Your task to perform on an android device: Turn off the flashlight Image 0: 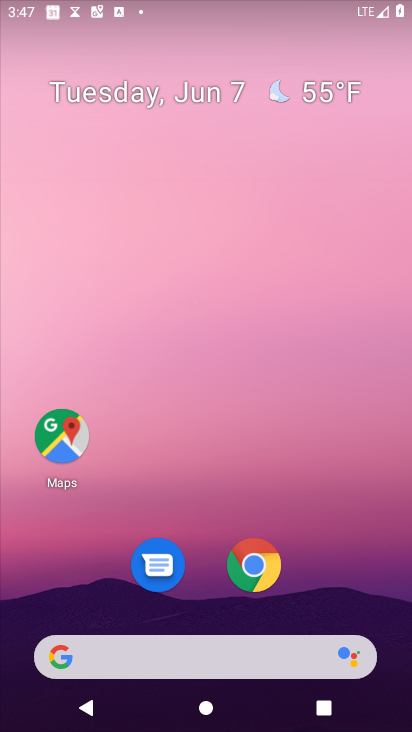
Step 0: drag from (326, 664) to (406, 7)
Your task to perform on an android device: Turn off the flashlight Image 1: 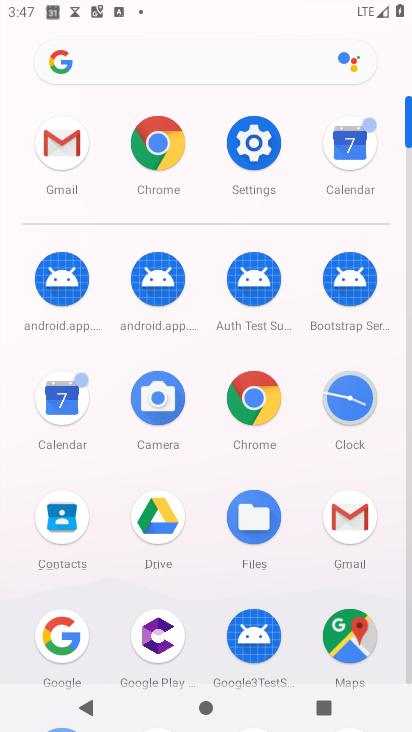
Step 1: click (268, 140)
Your task to perform on an android device: Turn off the flashlight Image 2: 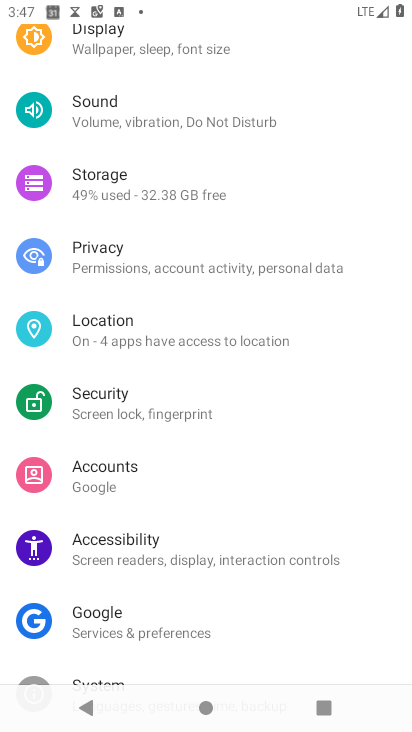
Step 2: task complete